Your task to perform on an android device: Go to eBay Image 0: 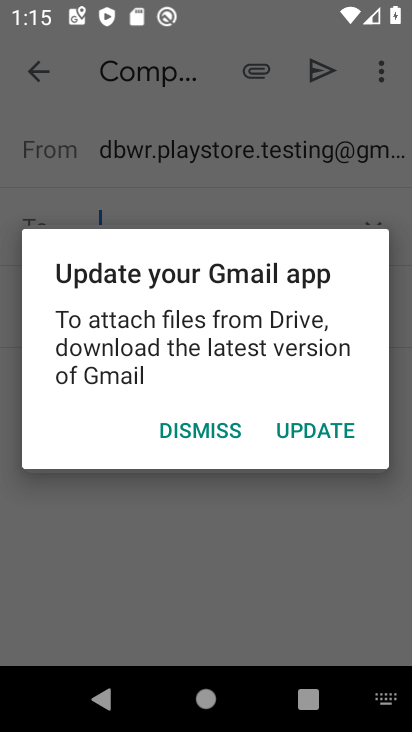
Step 0: press home button
Your task to perform on an android device: Go to eBay Image 1: 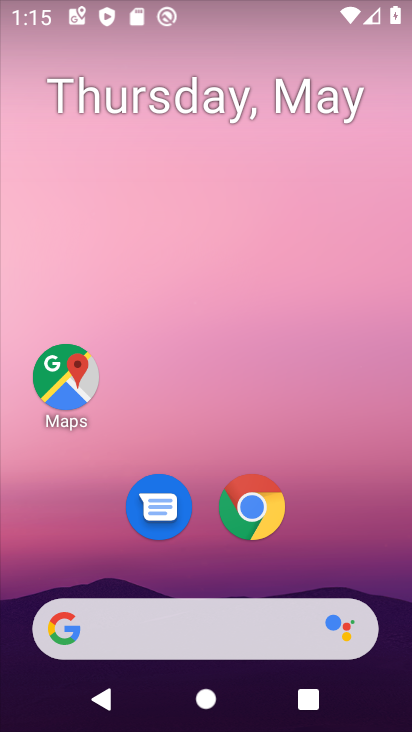
Step 1: drag from (202, 609) to (318, 42)
Your task to perform on an android device: Go to eBay Image 2: 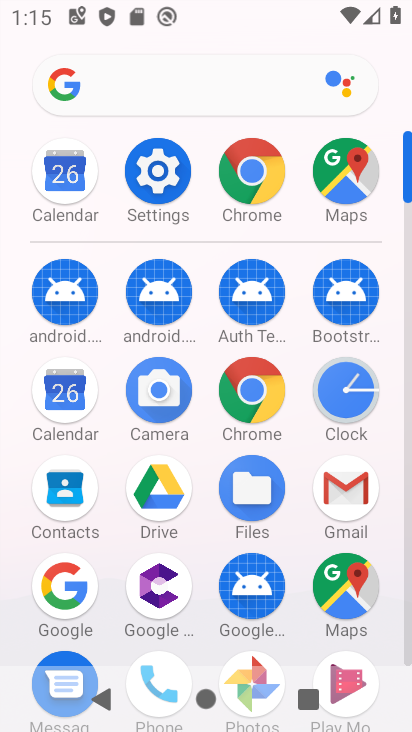
Step 2: click (260, 382)
Your task to perform on an android device: Go to eBay Image 3: 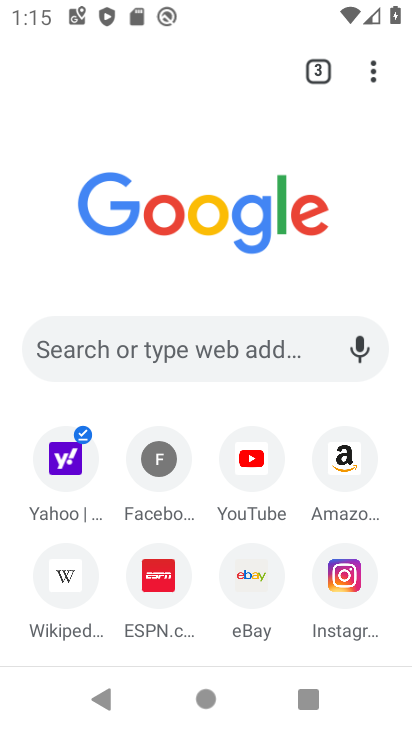
Step 3: click (259, 577)
Your task to perform on an android device: Go to eBay Image 4: 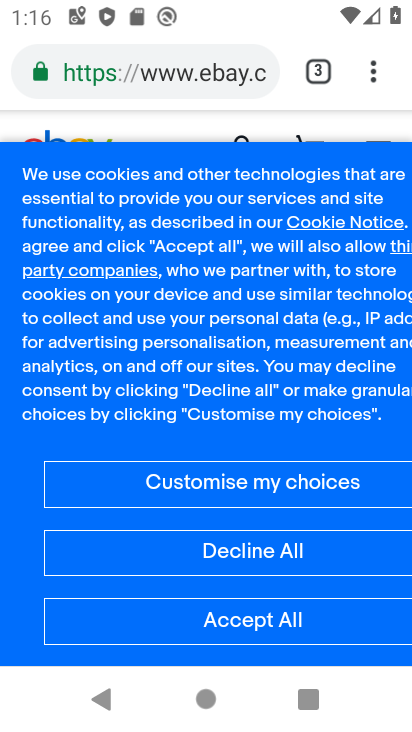
Step 4: task complete